Your task to perform on an android device: open a bookmark in the chrome app Image 0: 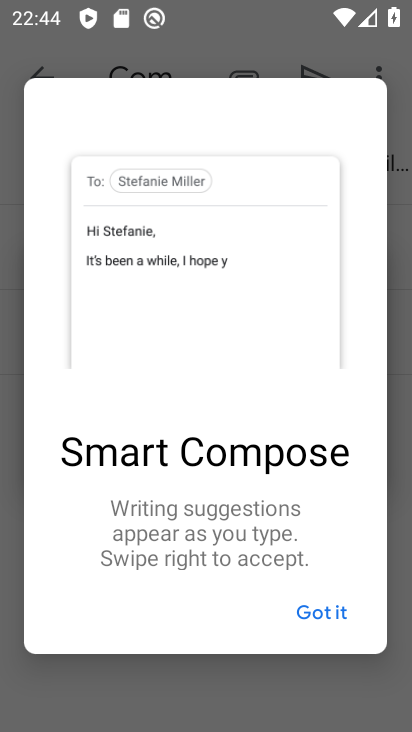
Step 0: press home button
Your task to perform on an android device: open a bookmark in the chrome app Image 1: 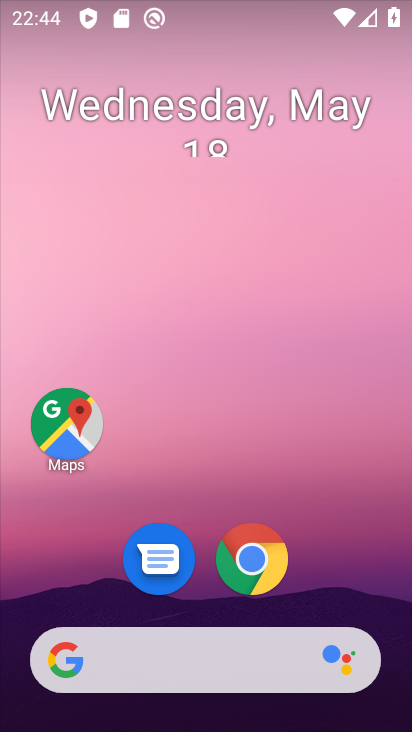
Step 1: click (251, 555)
Your task to perform on an android device: open a bookmark in the chrome app Image 2: 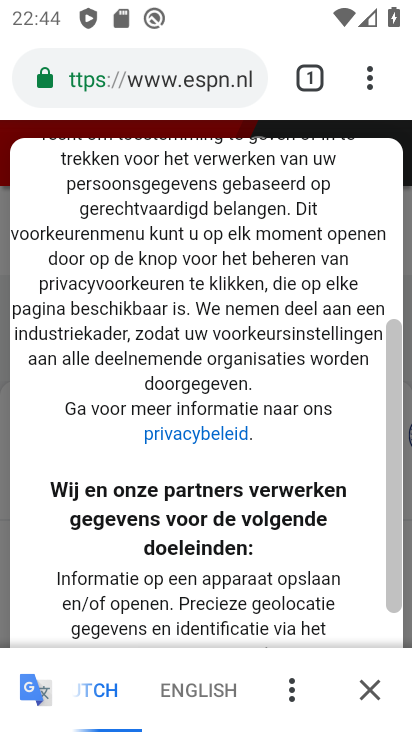
Step 2: click (369, 83)
Your task to perform on an android device: open a bookmark in the chrome app Image 3: 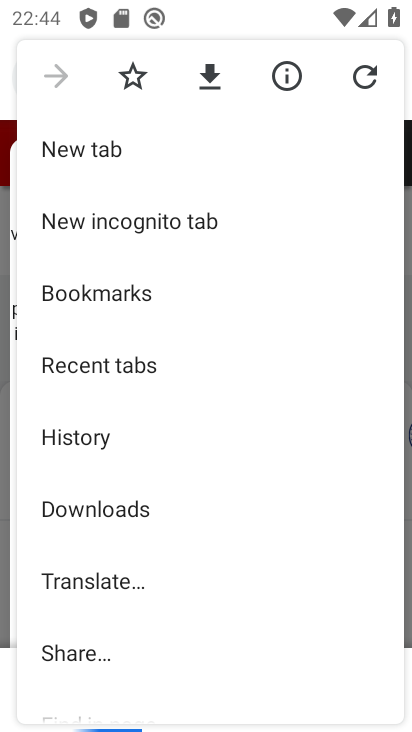
Step 3: click (79, 296)
Your task to perform on an android device: open a bookmark in the chrome app Image 4: 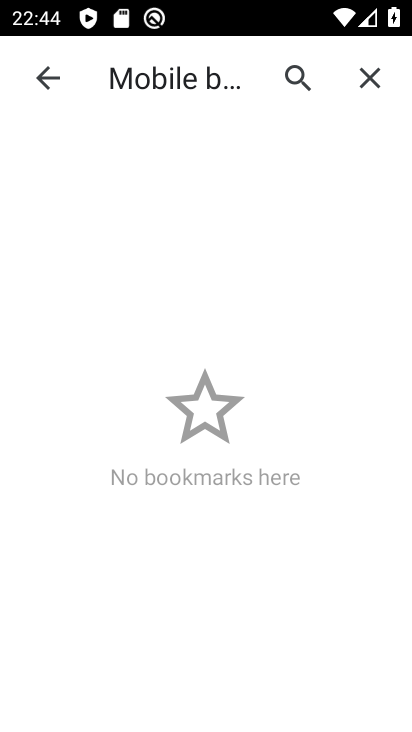
Step 4: task complete